Your task to perform on an android device: Add macbook air to the cart on ebay.com, then select checkout. Image 0: 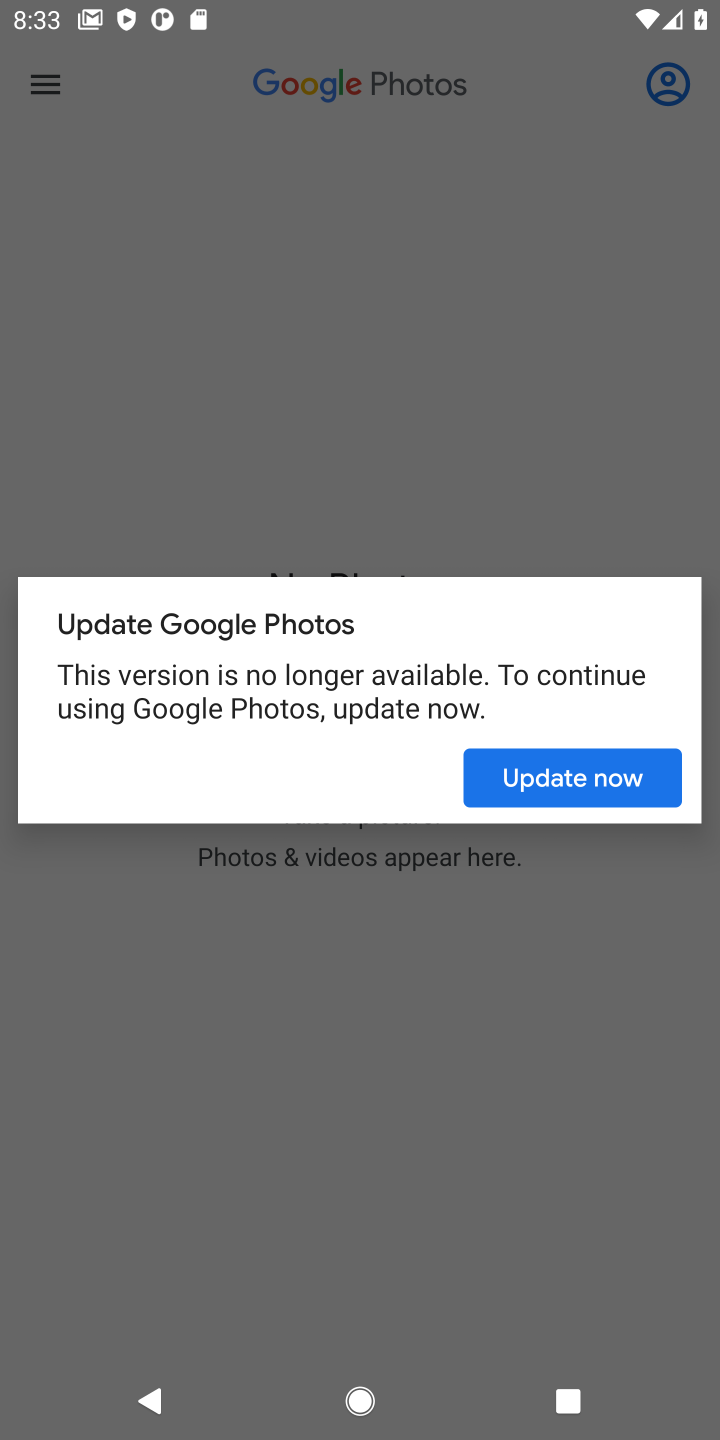
Step 0: press home button
Your task to perform on an android device: Add macbook air to the cart on ebay.com, then select checkout. Image 1: 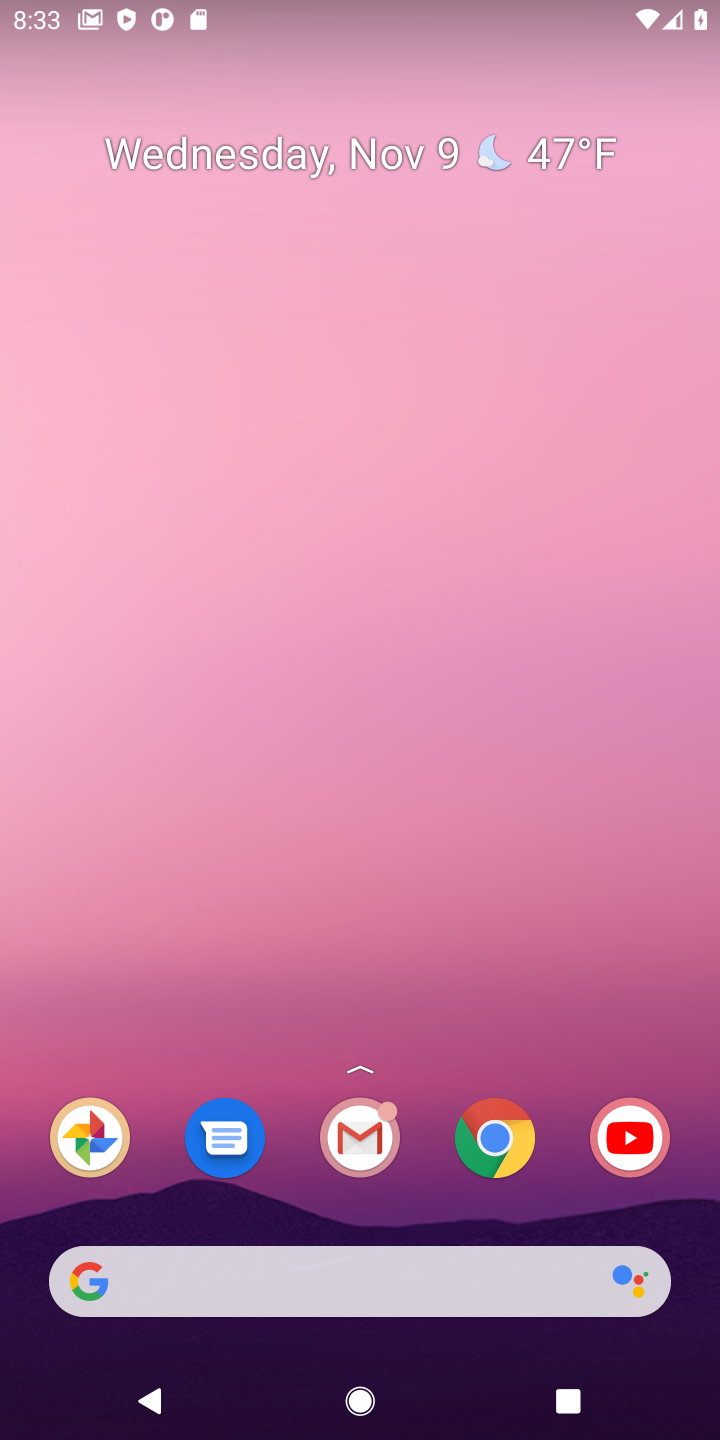
Step 1: drag from (416, 1228) to (444, 122)
Your task to perform on an android device: Add macbook air to the cart on ebay.com, then select checkout. Image 2: 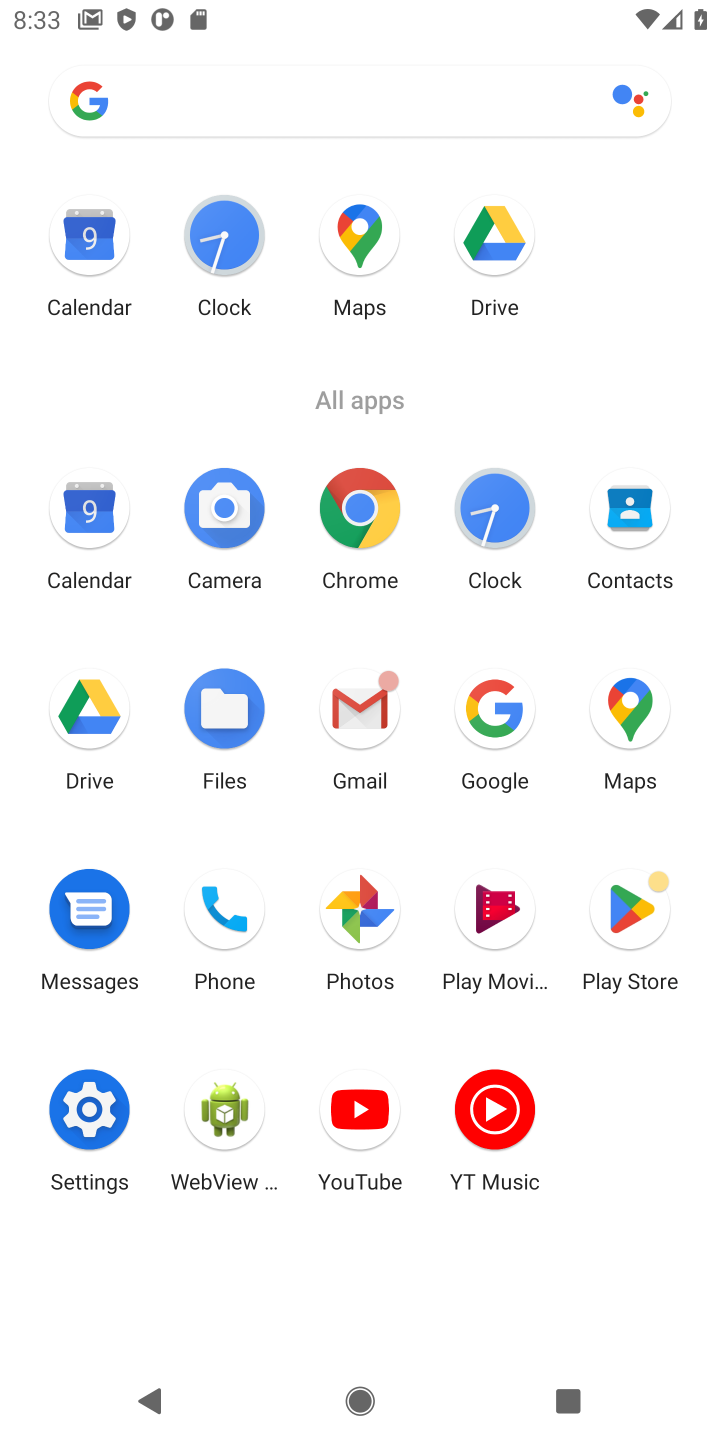
Step 2: click (356, 507)
Your task to perform on an android device: Add macbook air to the cart on ebay.com, then select checkout. Image 3: 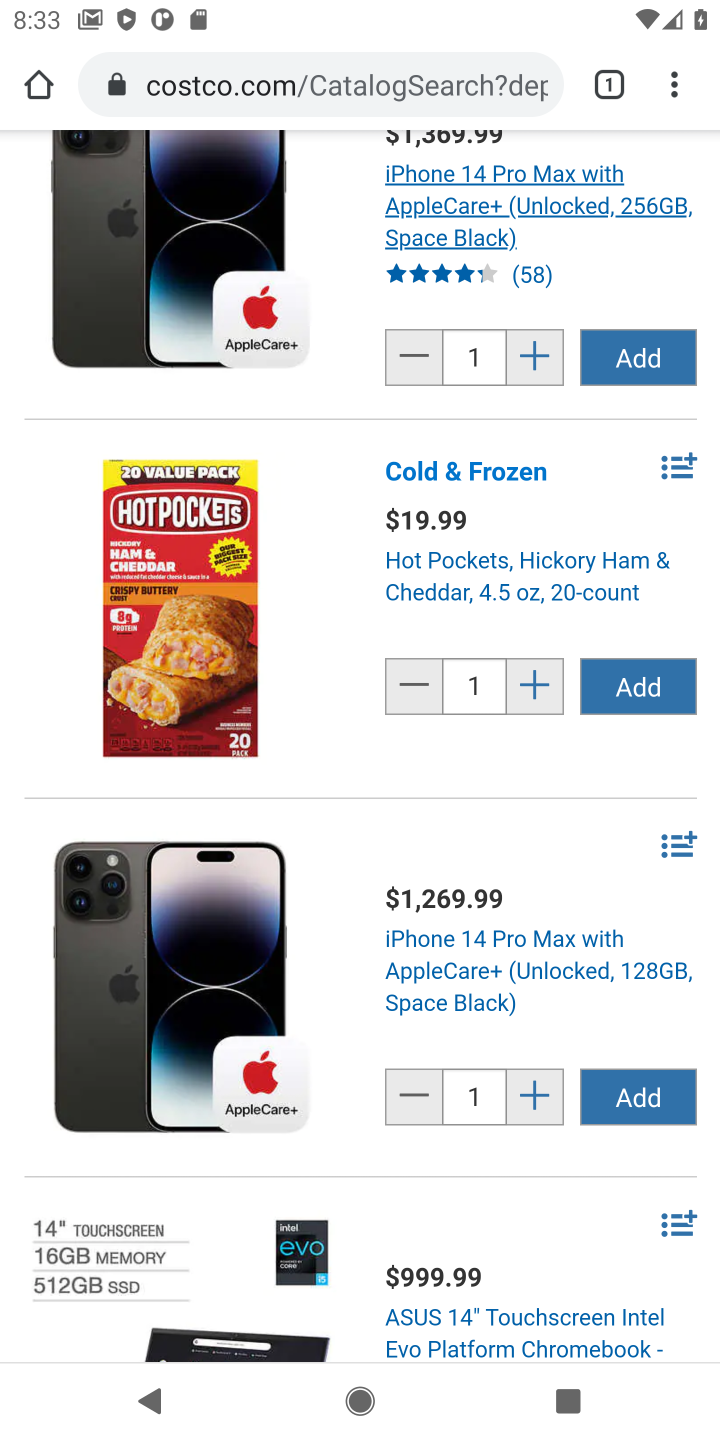
Step 3: click (437, 72)
Your task to perform on an android device: Add macbook air to the cart on ebay.com, then select checkout. Image 4: 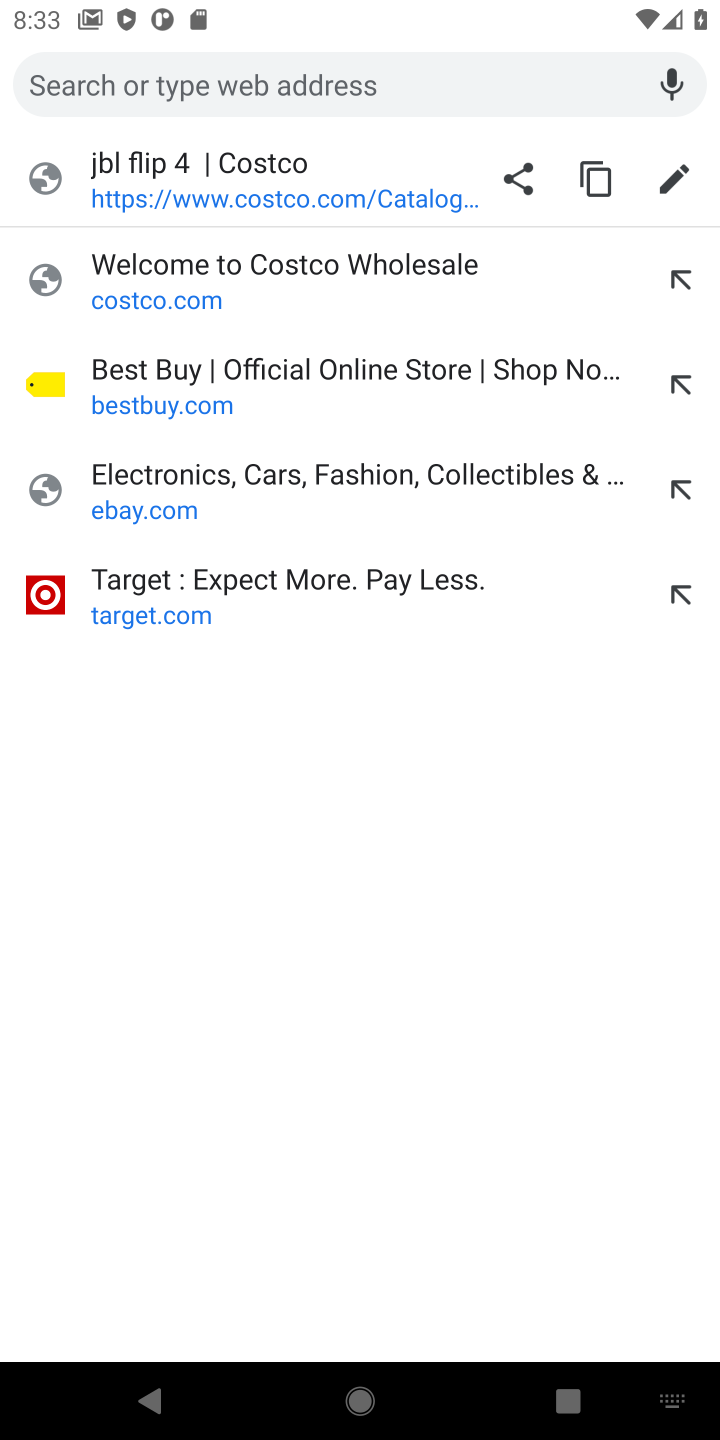
Step 4: type "ebay.com"
Your task to perform on an android device: Add macbook air to the cart on ebay.com, then select checkout. Image 5: 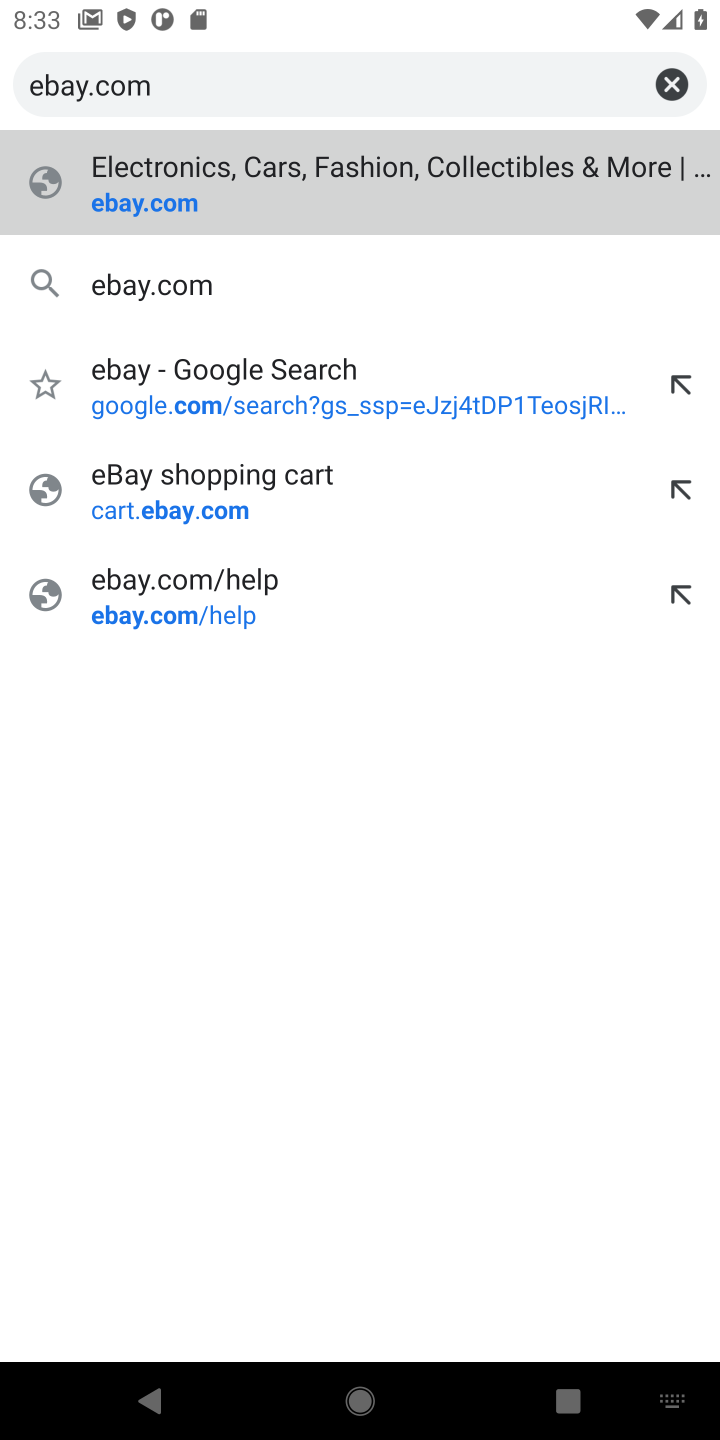
Step 5: press enter
Your task to perform on an android device: Add macbook air to the cart on ebay.com, then select checkout. Image 6: 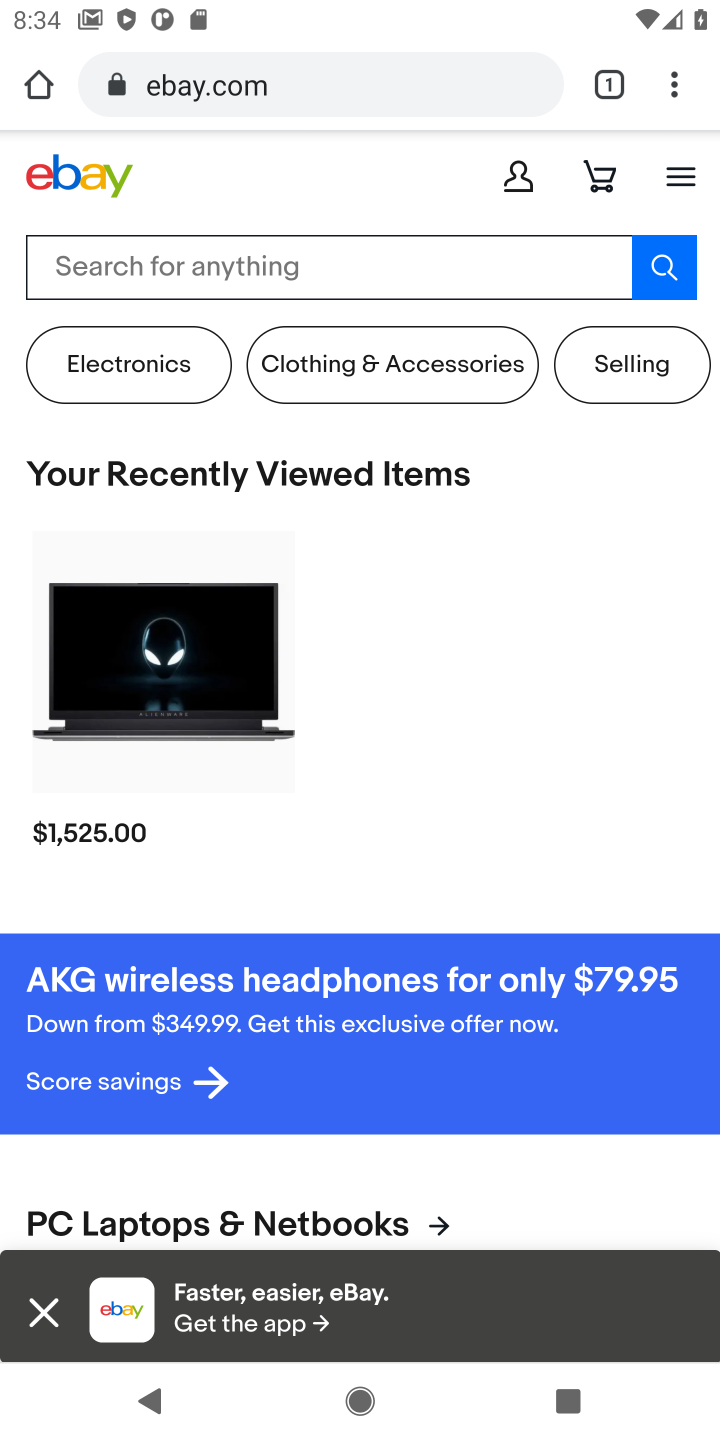
Step 6: click (381, 259)
Your task to perform on an android device: Add macbook air to the cart on ebay.com, then select checkout. Image 7: 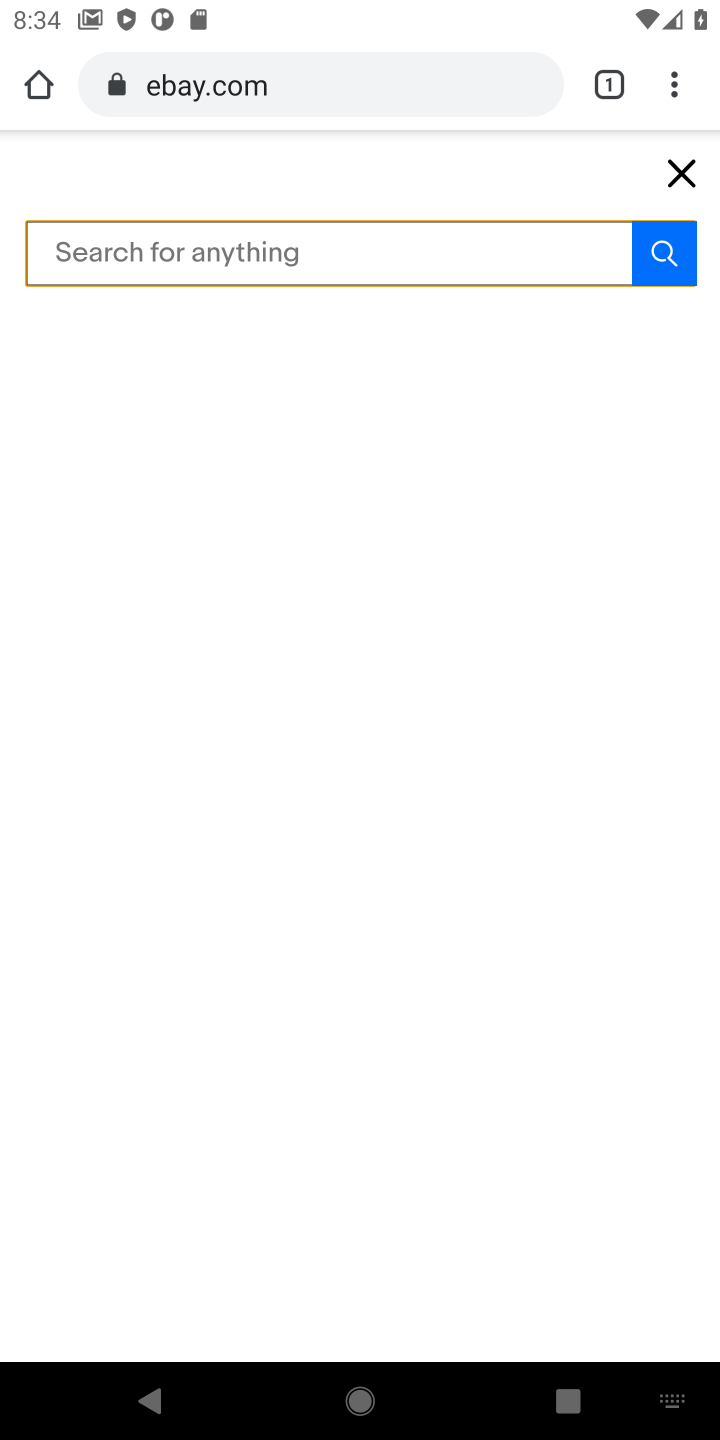
Step 7: type "macbook air"
Your task to perform on an android device: Add macbook air to the cart on ebay.com, then select checkout. Image 8: 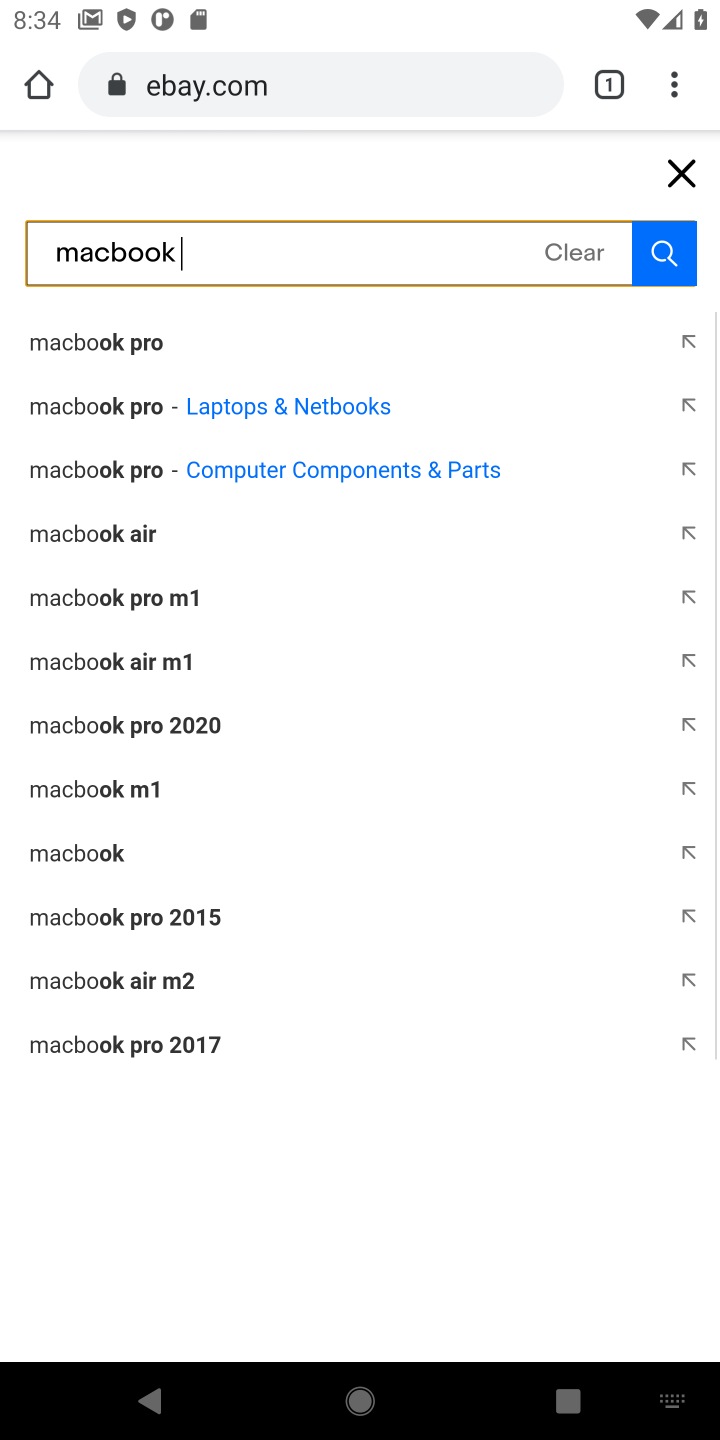
Step 8: press enter
Your task to perform on an android device: Add macbook air to the cart on ebay.com, then select checkout. Image 9: 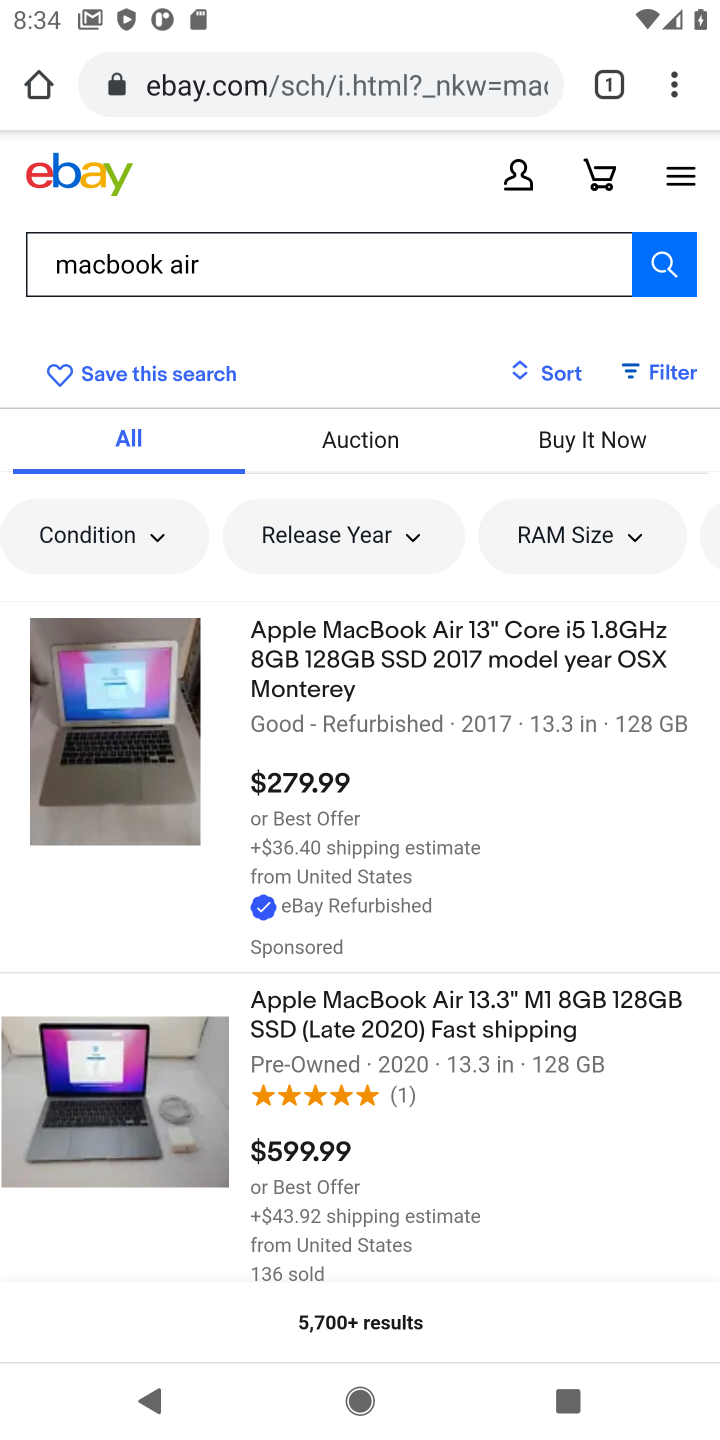
Step 9: click (463, 669)
Your task to perform on an android device: Add macbook air to the cart on ebay.com, then select checkout. Image 10: 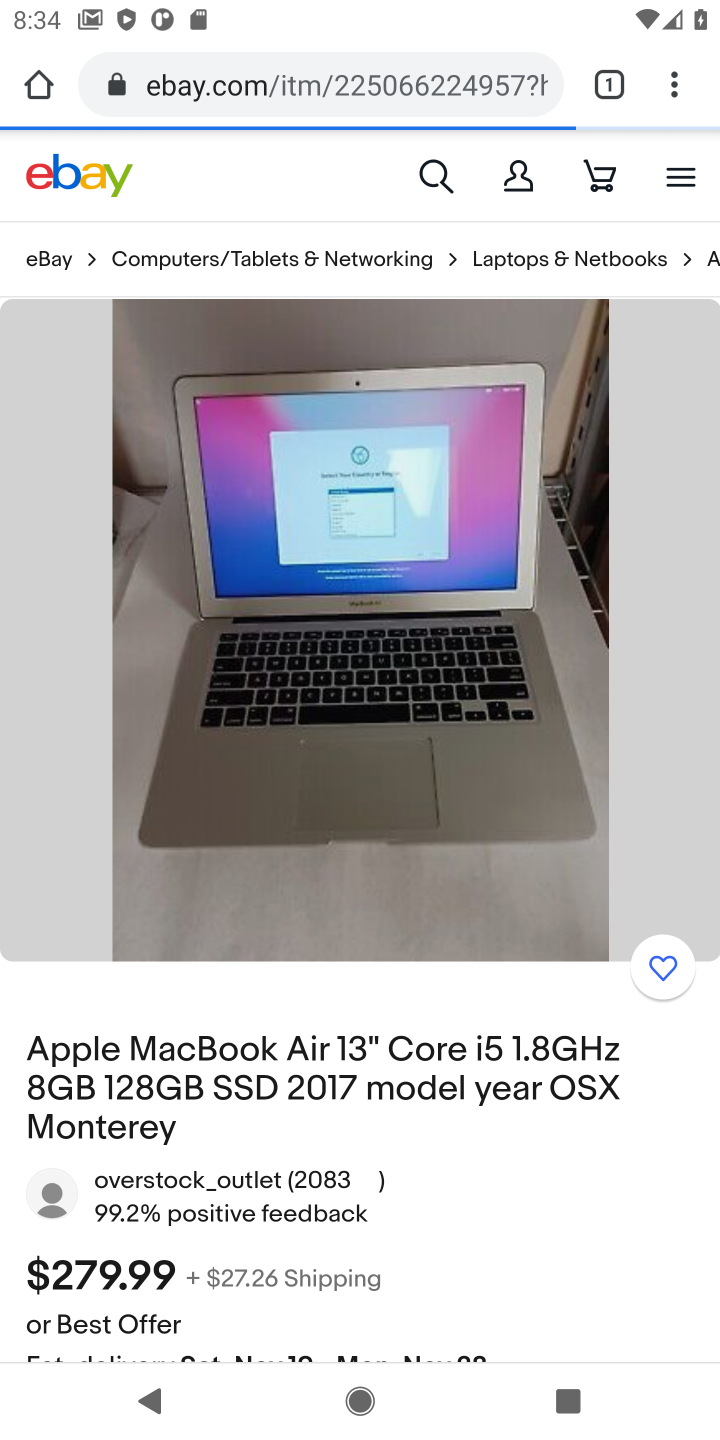
Step 10: drag from (455, 1216) to (388, 517)
Your task to perform on an android device: Add macbook air to the cart on ebay.com, then select checkout. Image 11: 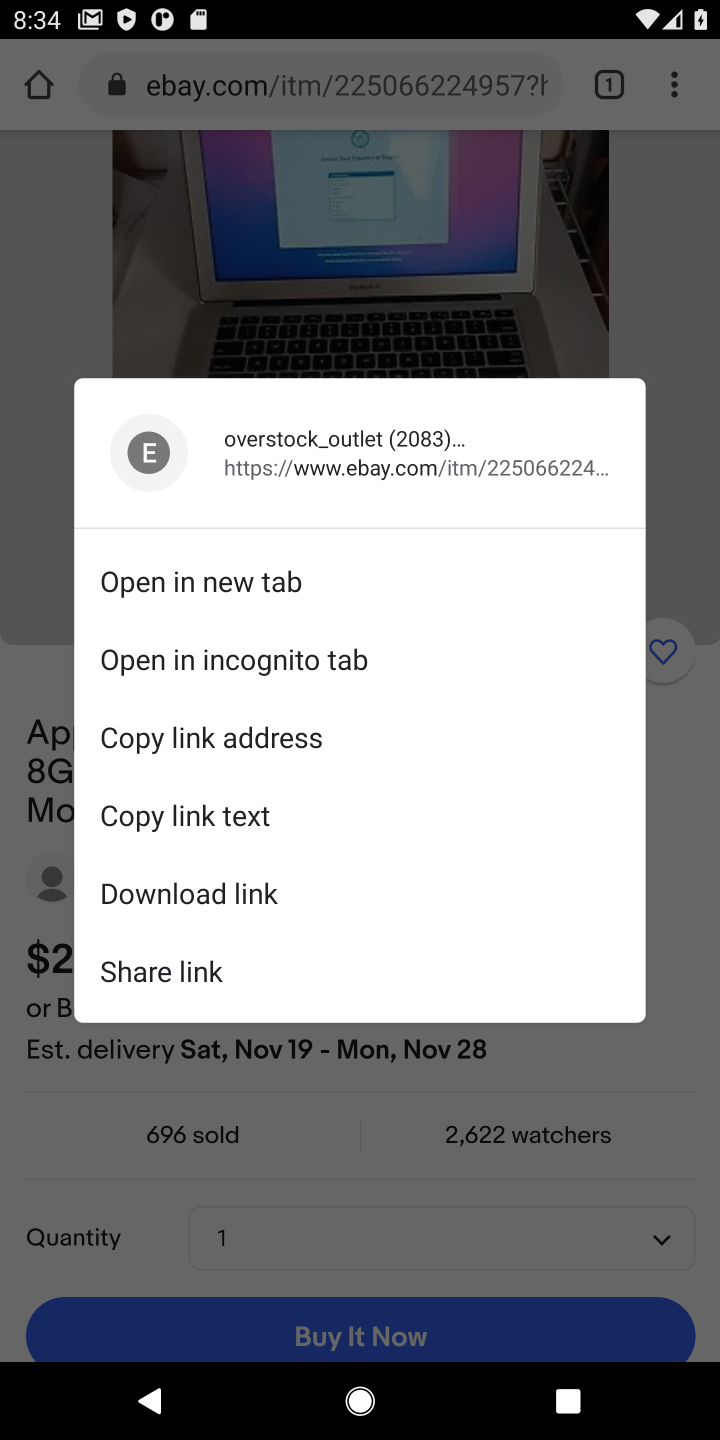
Step 11: click (484, 1202)
Your task to perform on an android device: Add macbook air to the cart on ebay.com, then select checkout. Image 12: 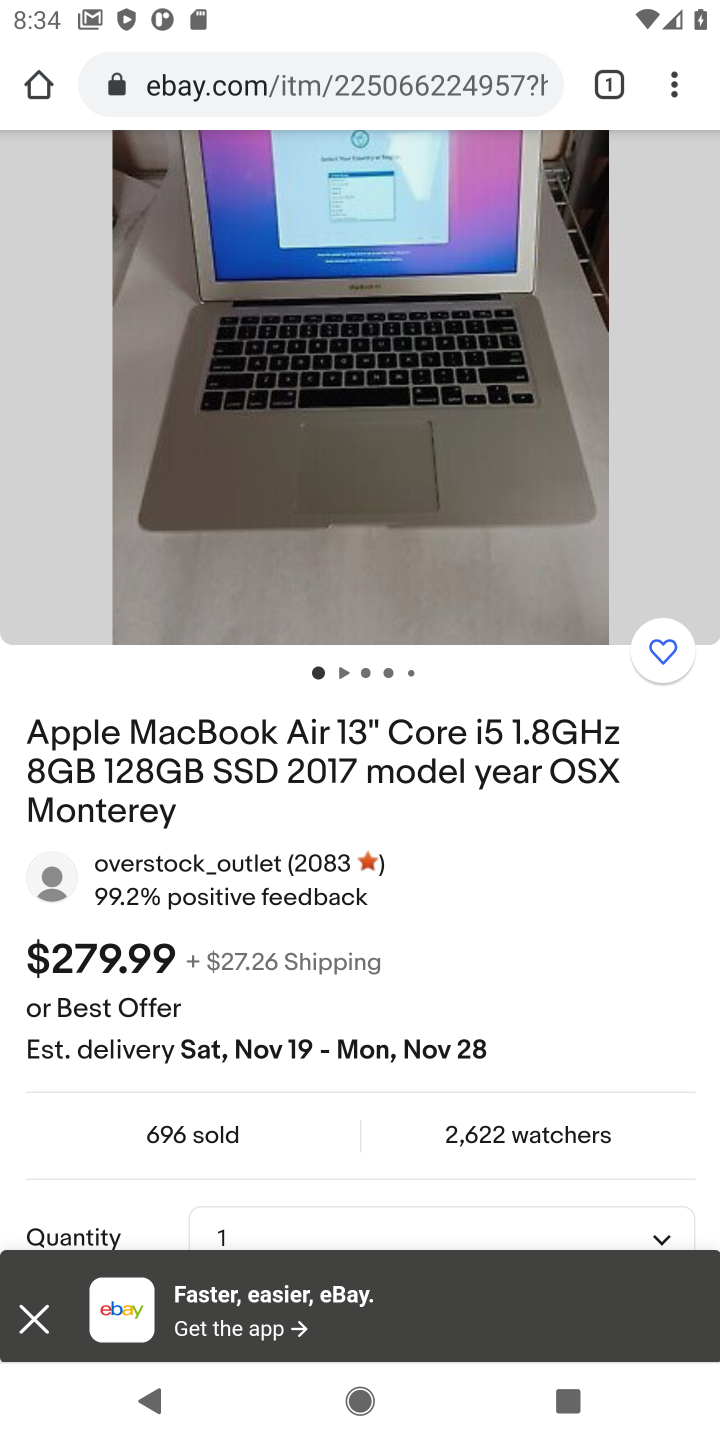
Step 12: drag from (307, 1184) to (278, 518)
Your task to perform on an android device: Add macbook air to the cart on ebay.com, then select checkout. Image 13: 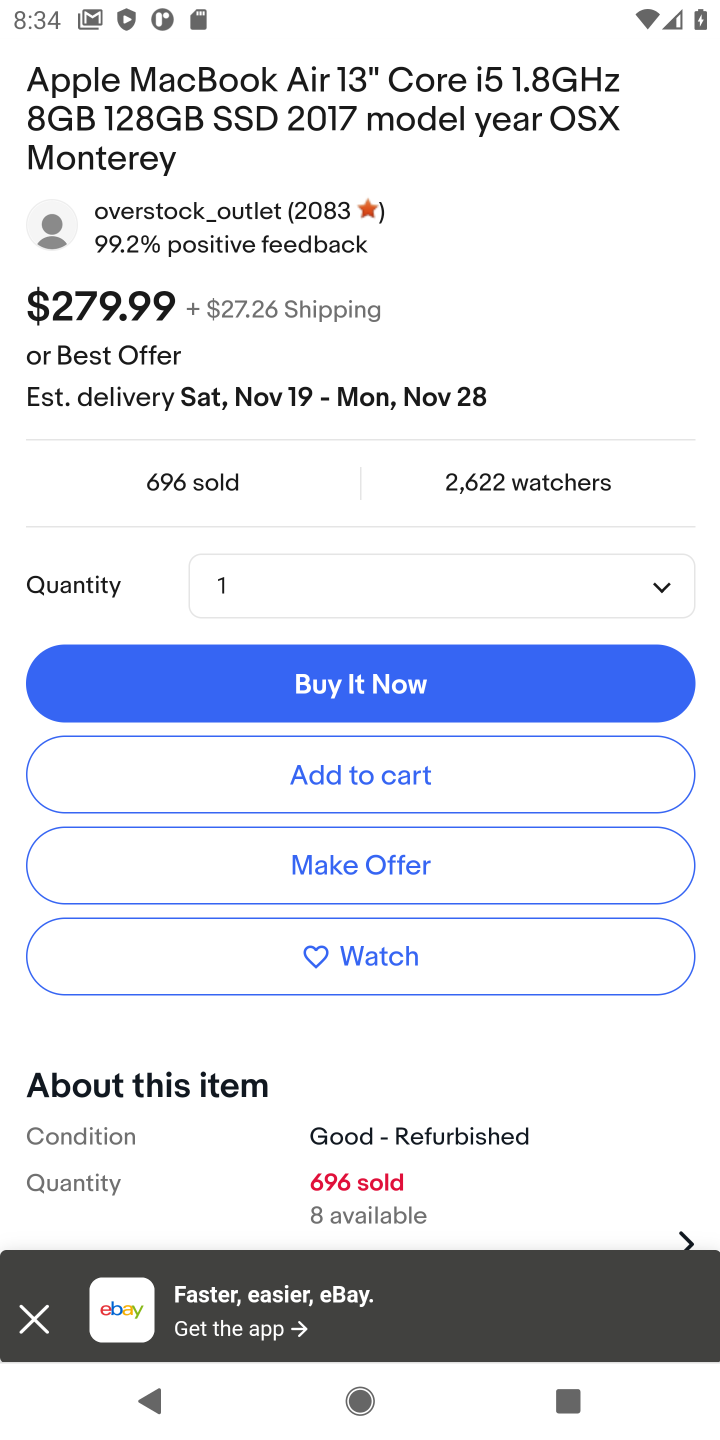
Step 13: click (410, 773)
Your task to perform on an android device: Add macbook air to the cart on ebay.com, then select checkout. Image 14: 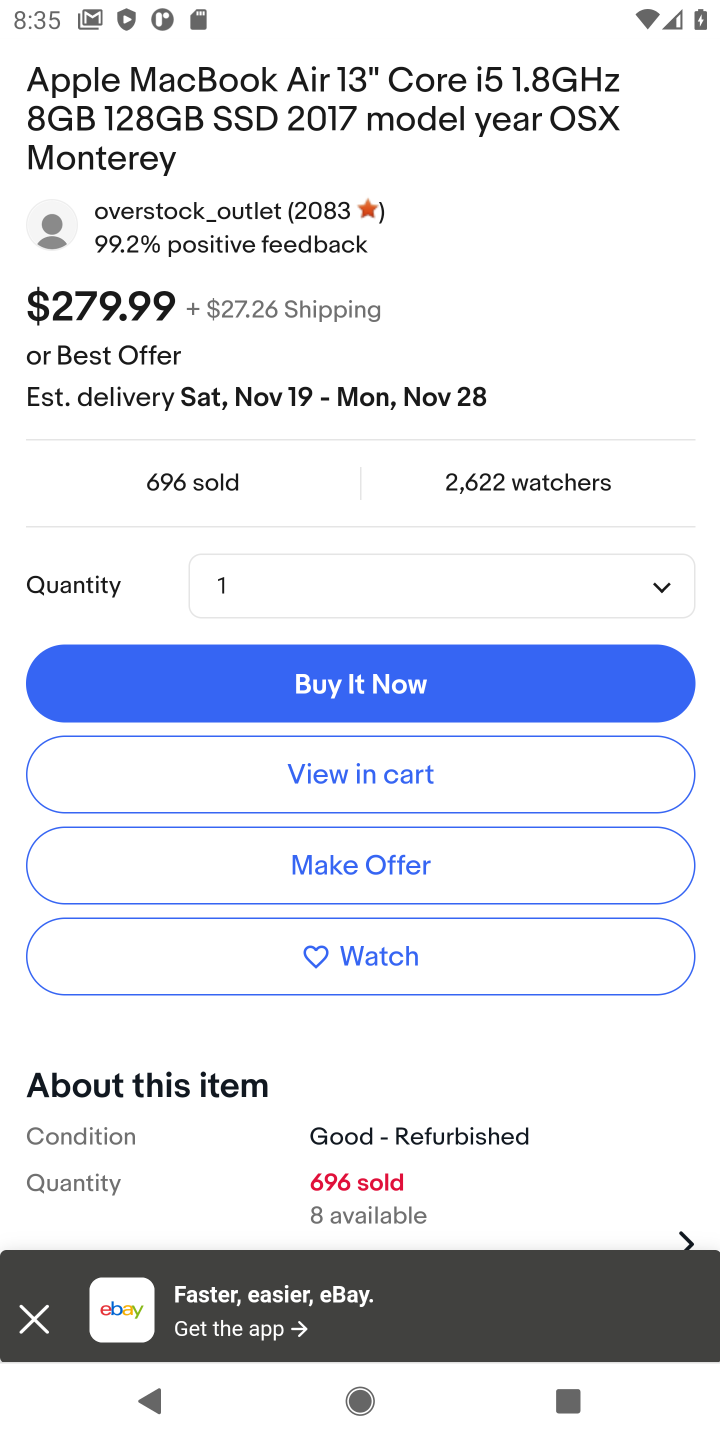
Step 14: click (388, 776)
Your task to perform on an android device: Add macbook air to the cart on ebay.com, then select checkout. Image 15: 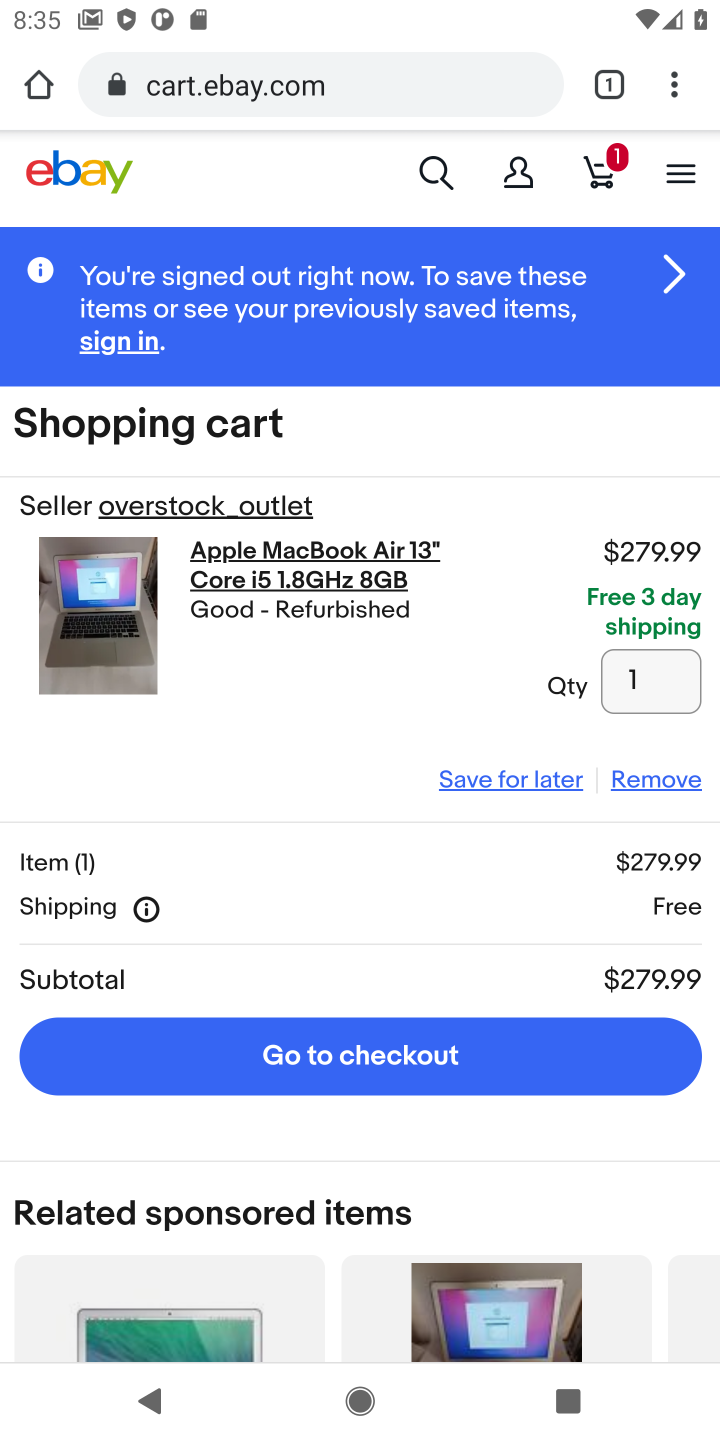
Step 15: click (419, 1055)
Your task to perform on an android device: Add macbook air to the cart on ebay.com, then select checkout. Image 16: 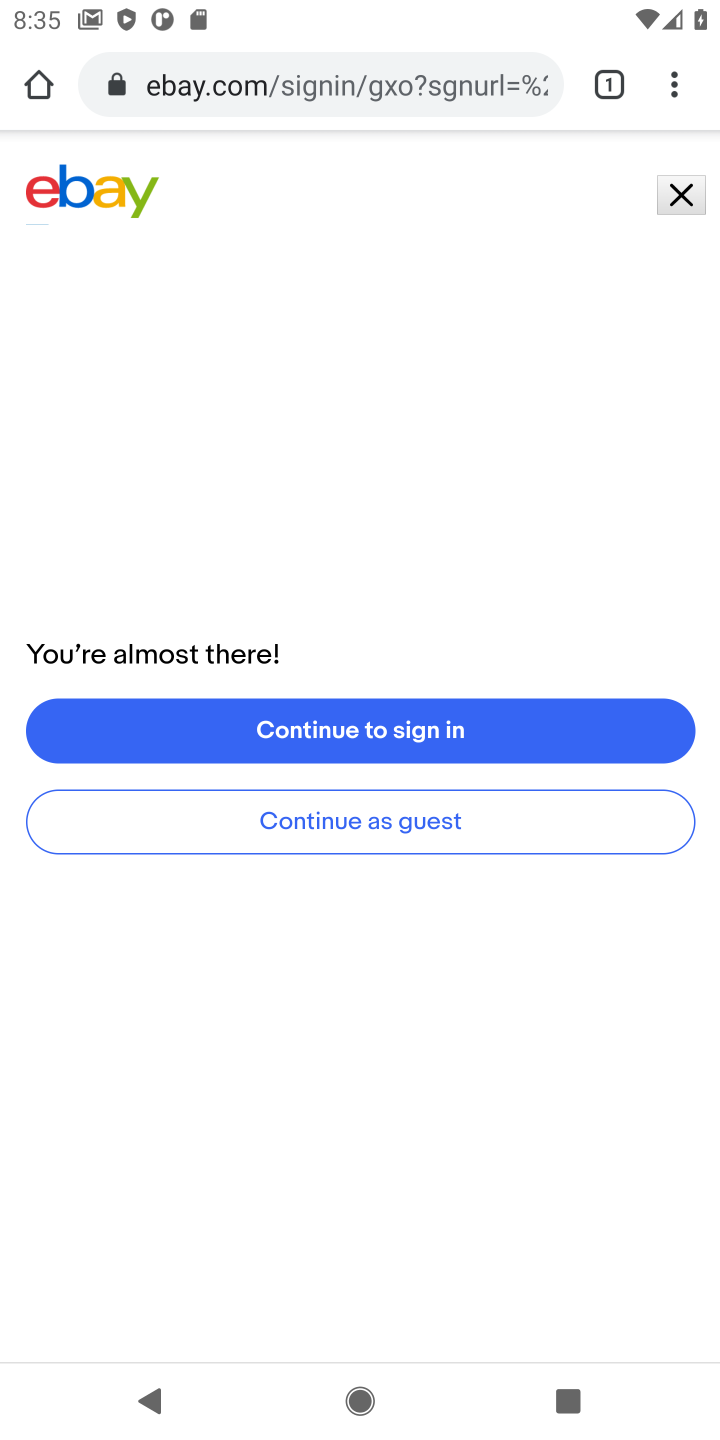
Step 16: task complete